Your task to perform on an android device: What is the news today? Image 0: 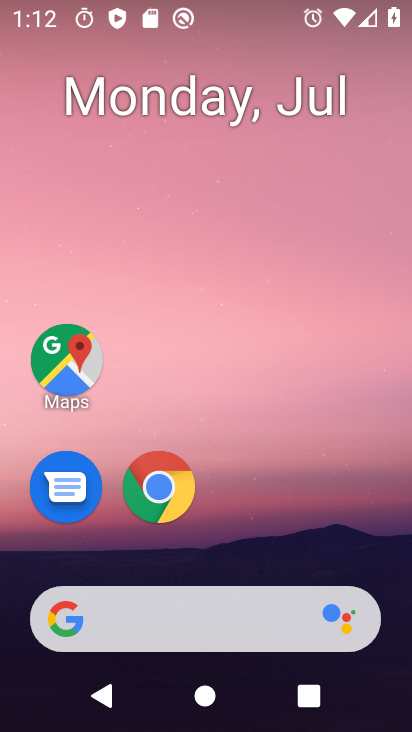
Step 0: click (69, 623)
Your task to perform on an android device: What is the news today? Image 1: 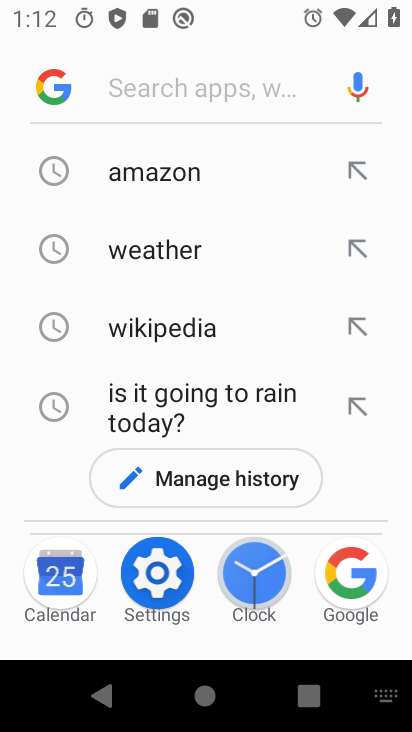
Step 1: type "What is the news today?"
Your task to perform on an android device: What is the news today? Image 2: 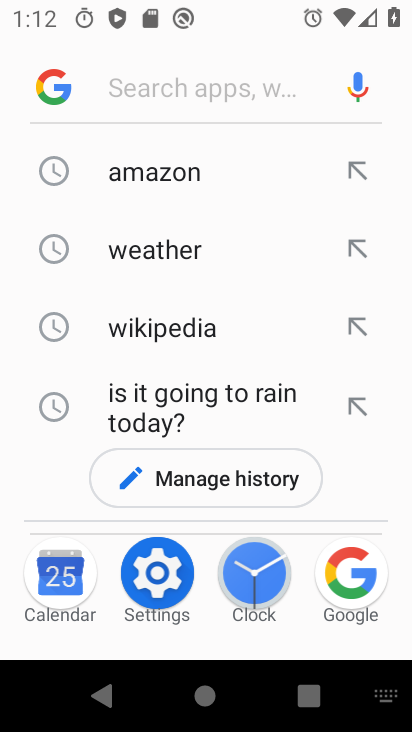
Step 2: click (138, 93)
Your task to perform on an android device: What is the news today? Image 3: 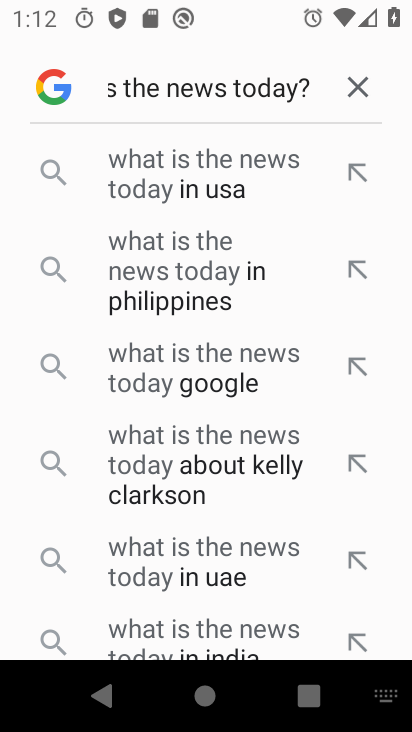
Step 3: press enter
Your task to perform on an android device: What is the news today? Image 4: 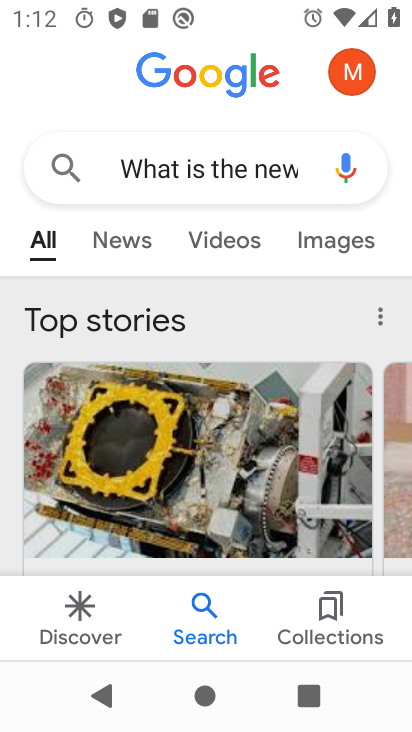
Step 4: task complete